Your task to perform on an android device: turn on data saver in the chrome app Image 0: 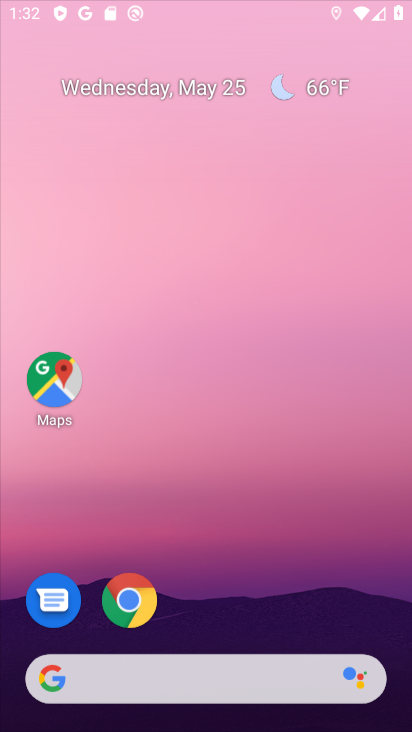
Step 0: drag from (233, 120) to (317, 100)
Your task to perform on an android device: turn on data saver in the chrome app Image 1: 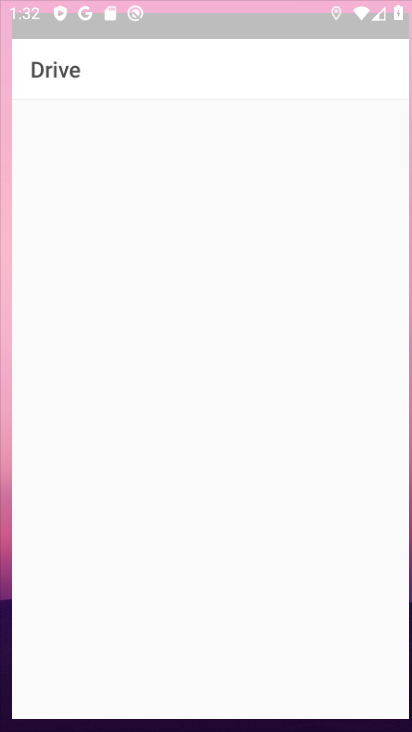
Step 1: press home button
Your task to perform on an android device: turn on data saver in the chrome app Image 2: 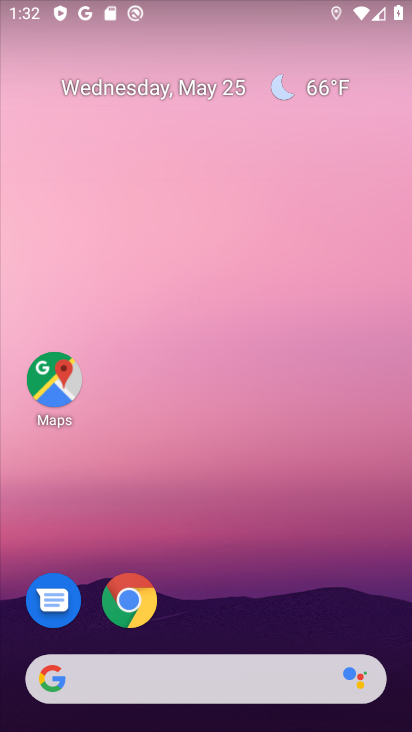
Step 2: click (139, 623)
Your task to perform on an android device: turn on data saver in the chrome app Image 3: 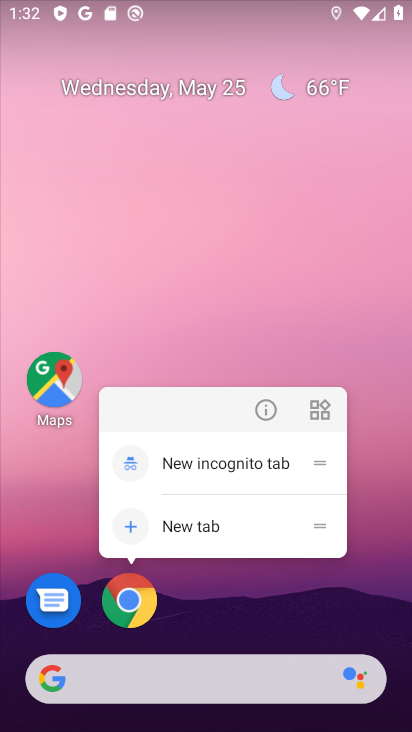
Step 3: click (139, 614)
Your task to perform on an android device: turn on data saver in the chrome app Image 4: 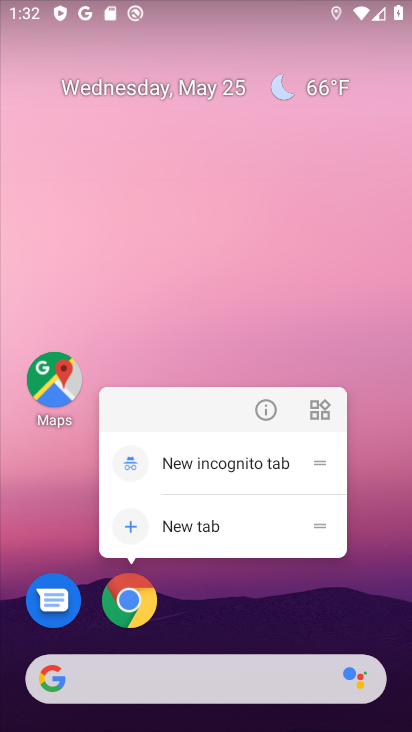
Step 4: click (131, 609)
Your task to perform on an android device: turn on data saver in the chrome app Image 5: 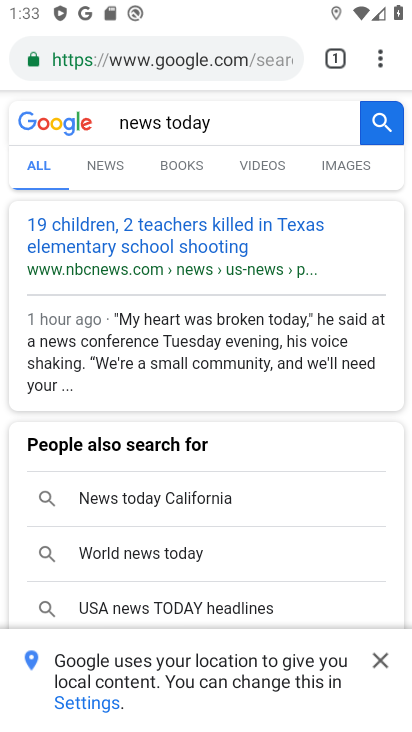
Step 5: drag from (385, 54) to (272, 630)
Your task to perform on an android device: turn on data saver in the chrome app Image 6: 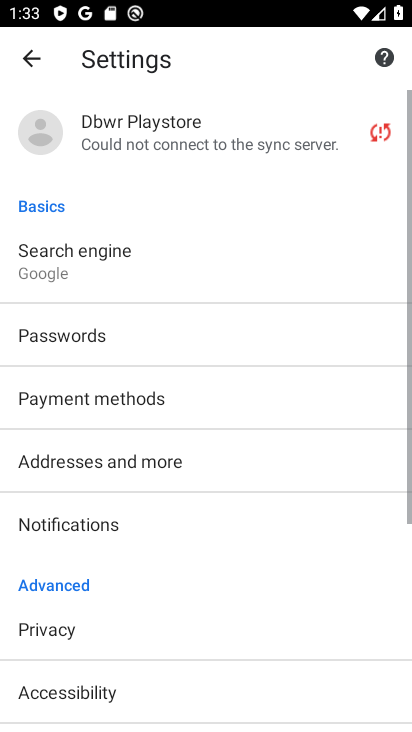
Step 6: drag from (98, 634) to (217, 352)
Your task to perform on an android device: turn on data saver in the chrome app Image 7: 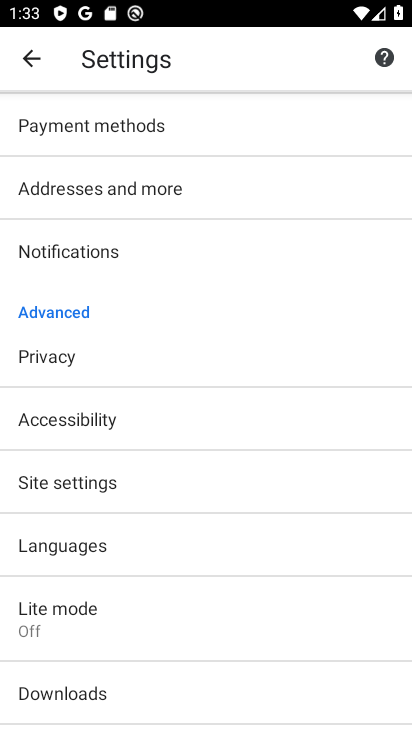
Step 7: click (107, 616)
Your task to perform on an android device: turn on data saver in the chrome app Image 8: 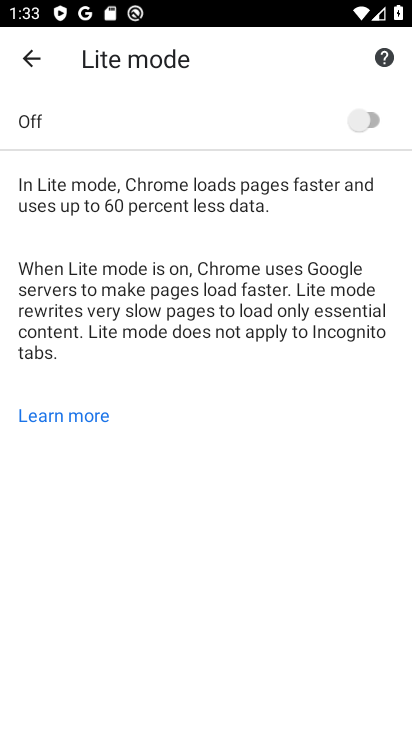
Step 8: click (373, 117)
Your task to perform on an android device: turn on data saver in the chrome app Image 9: 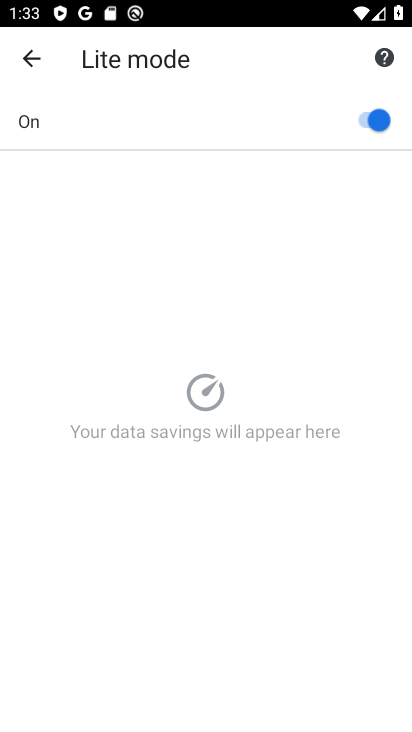
Step 9: task complete